Your task to perform on an android device: change notifications settings Image 0: 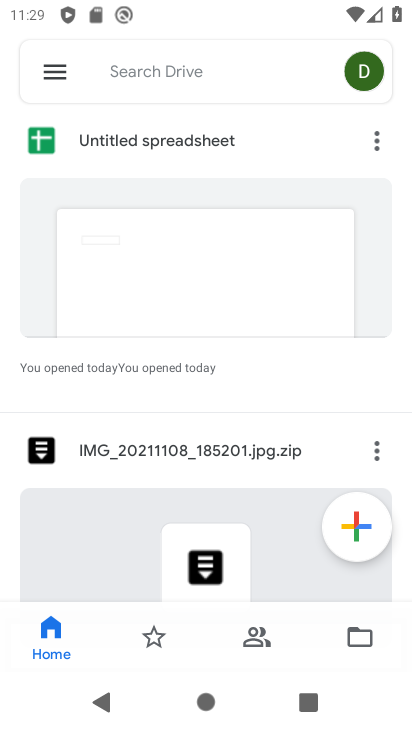
Step 0: press back button
Your task to perform on an android device: change notifications settings Image 1: 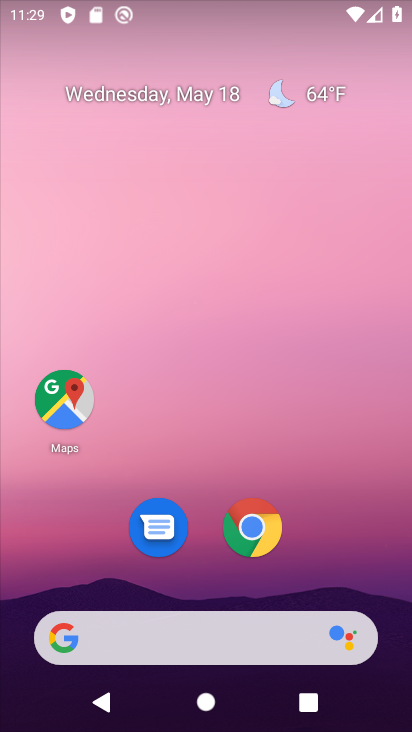
Step 1: drag from (153, 603) to (270, 19)
Your task to perform on an android device: change notifications settings Image 2: 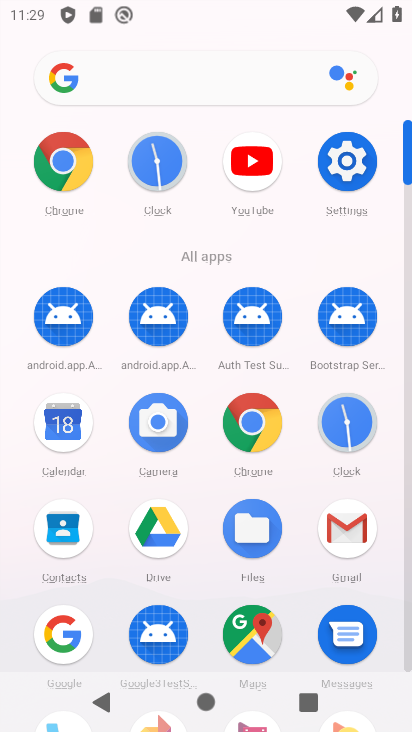
Step 2: click (350, 180)
Your task to perform on an android device: change notifications settings Image 3: 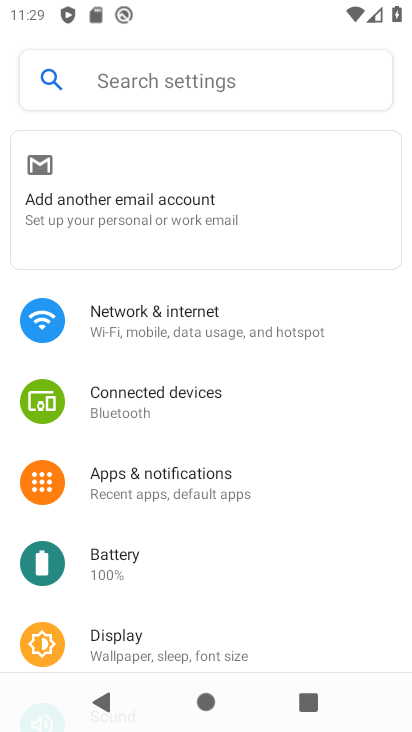
Step 3: click (159, 482)
Your task to perform on an android device: change notifications settings Image 4: 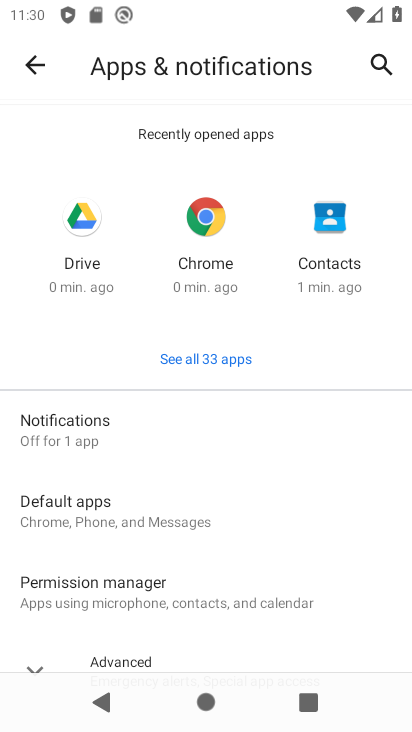
Step 4: click (141, 436)
Your task to perform on an android device: change notifications settings Image 5: 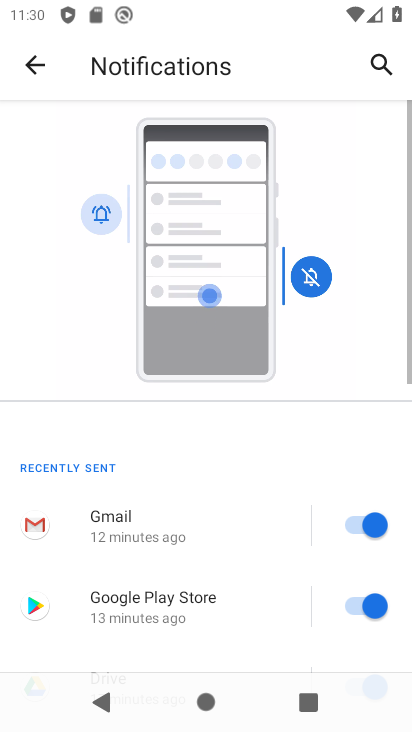
Step 5: drag from (191, 557) to (299, 85)
Your task to perform on an android device: change notifications settings Image 6: 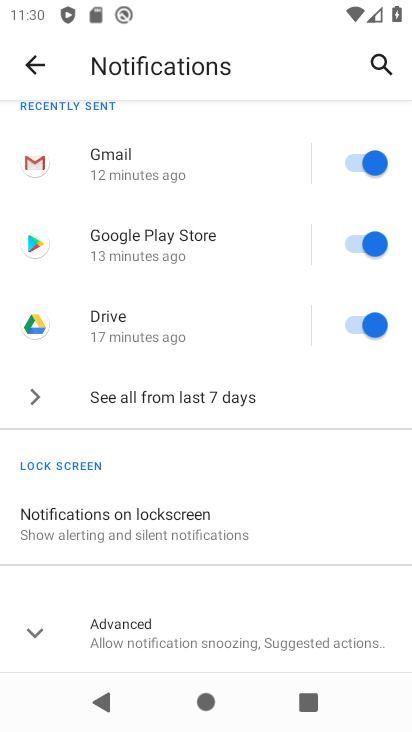
Step 6: click (171, 621)
Your task to perform on an android device: change notifications settings Image 7: 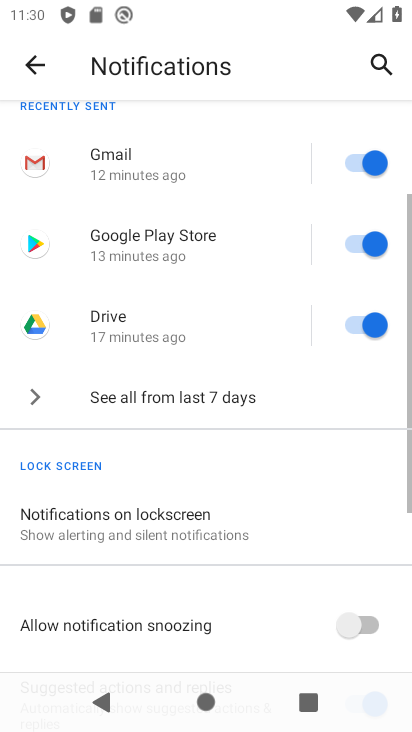
Step 7: drag from (228, 622) to (252, 195)
Your task to perform on an android device: change notifications settings Image 8: 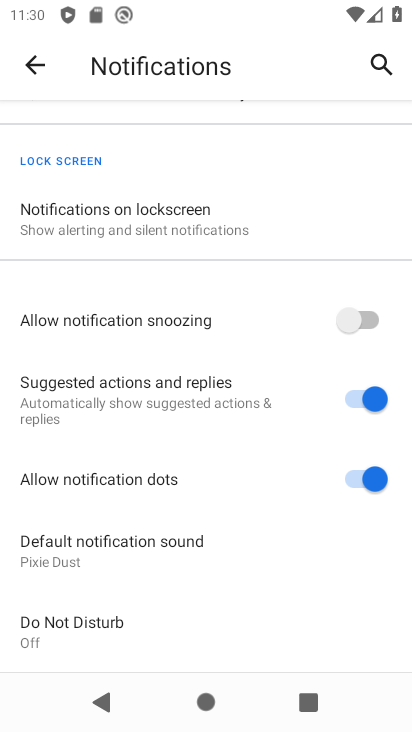
Step 8: click (352, 321)
Your task to perform on an android device: change notifications settings Image 9: 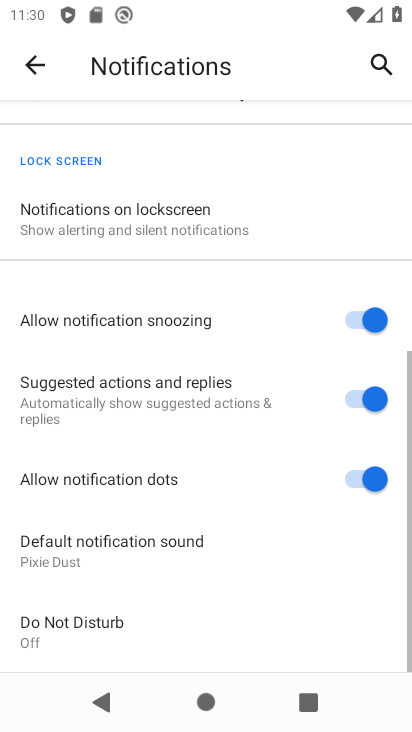
Step 9: task complete